Your task to perform on an android device: turn vacation reply on in the gmail app Image 0: 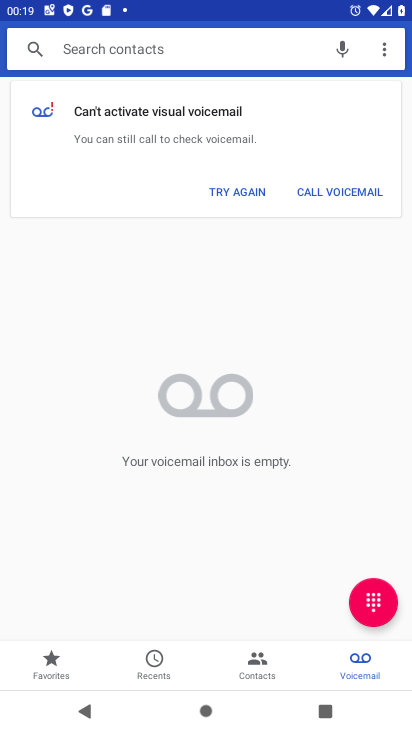
Step 0: press home button
Your task to perform on an android device: turn vacation reply on in the gmail app Image 1: 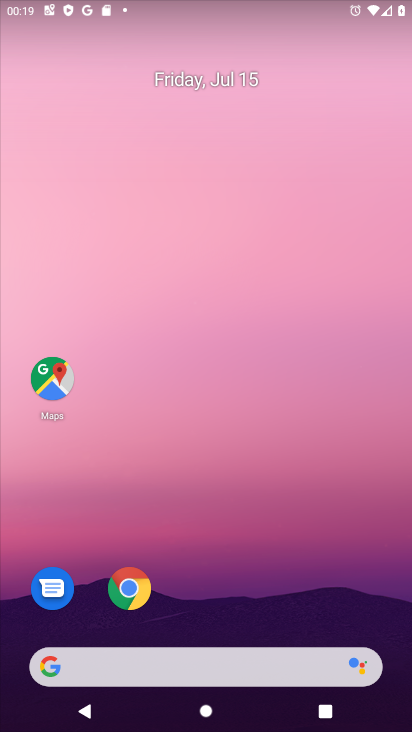
Step 1: drag from (168, 663) to (307, 41)
Your task to perform on an android device: turn vacation reply on in the gmail app Image 2: 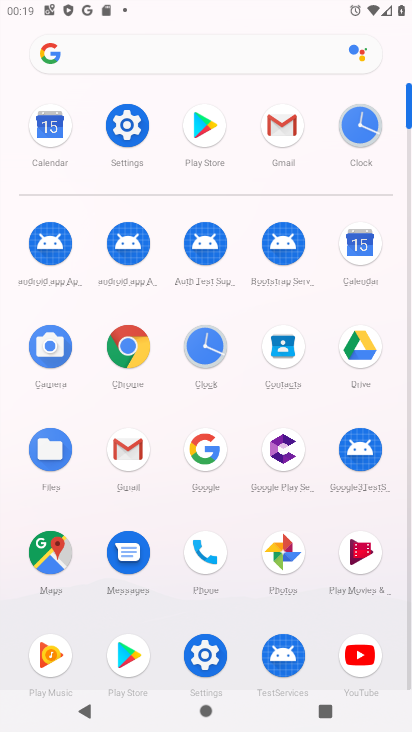
Step 2: click (286, 128)
Your task to perform on an android device: turn vacation reply on in the gmail app Image 3: 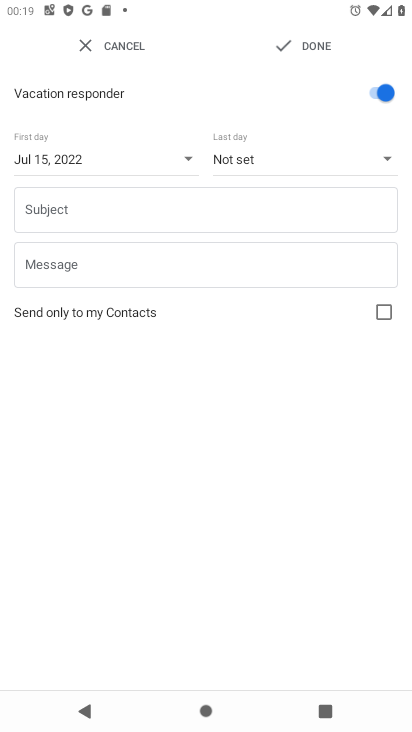
Step 3: click (157, 210)
Your task to perform on an android device: turn vacation reply on in the gmail app Image 4: 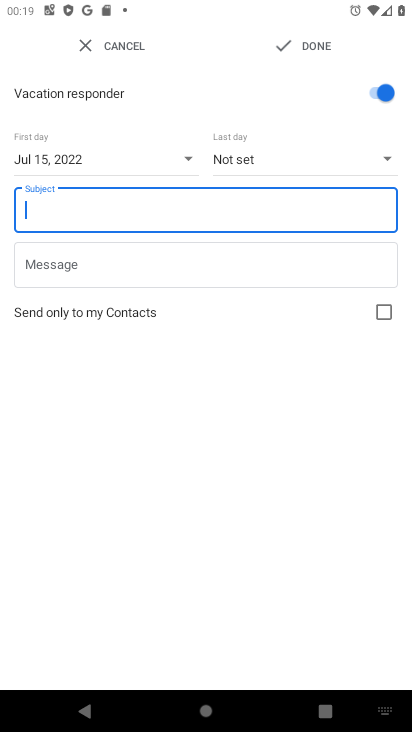
Step 4: type "ddddd"
Your task to perform on an android device: turn vacation reply on in the gmail app Image 5: 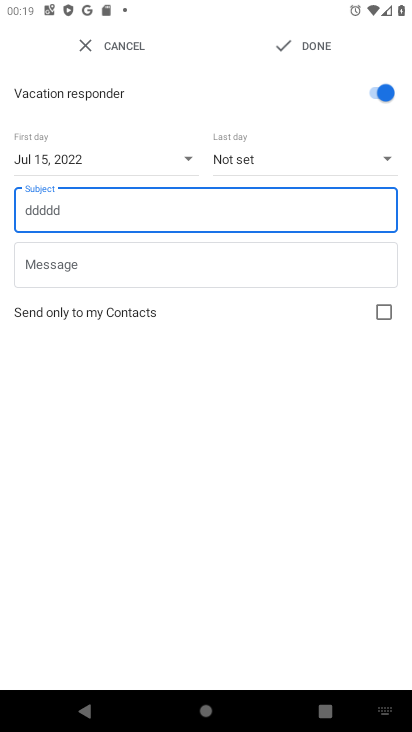
Step 5: click (122, 269)
Your task to perform on an android device: turn vacation reply on in the gmail app Image 6: 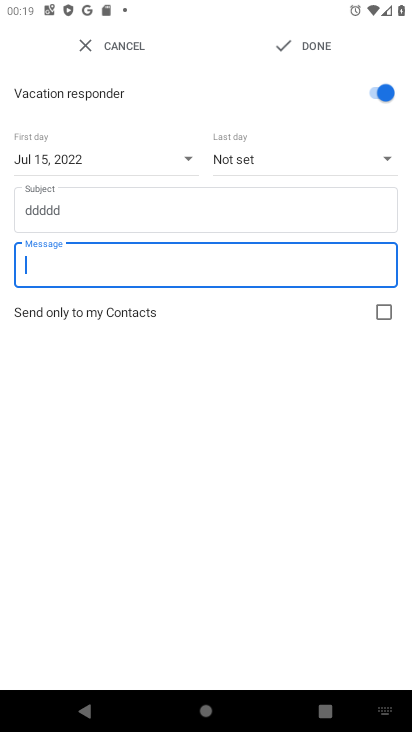
Step 6: type "erfdghh"
Your task to perform on an android device: turn vacation reply on in the gmail app Image 7: 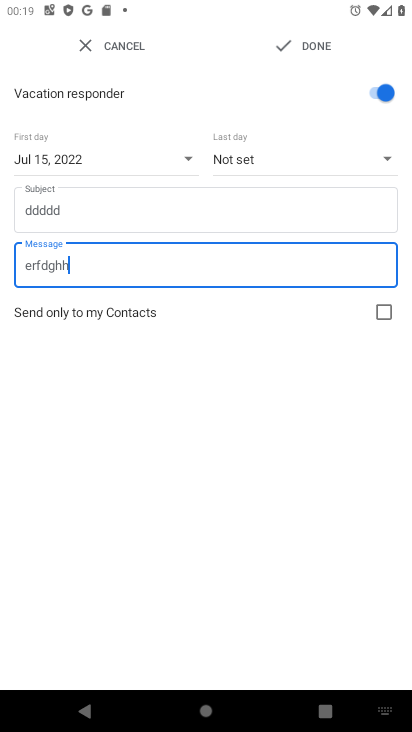
Step 7: click (304, 43)
Your task to perform on an android device: turn vacation reply on in the gmail app Image 8: 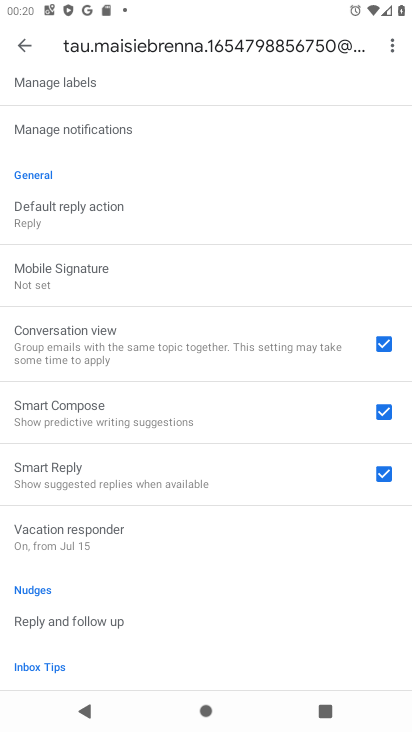
Step 8: task complete